Your task to perform on an android device: turn off priority inbox in the gmail app Image 0: 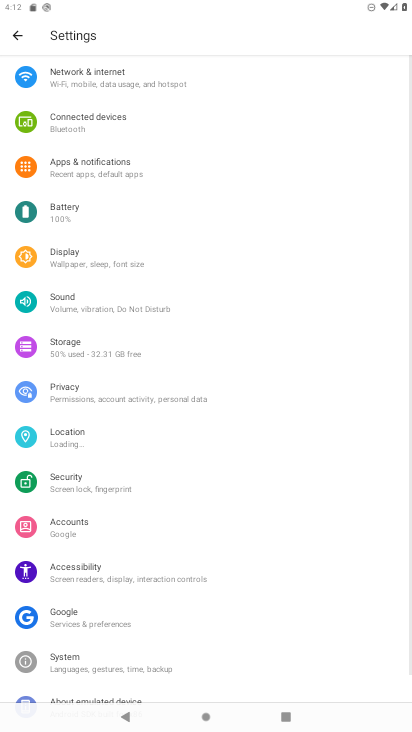
Step 0: press home button
Your task to perform on an android device: turn off priority inbox in the gmail app Image 1: 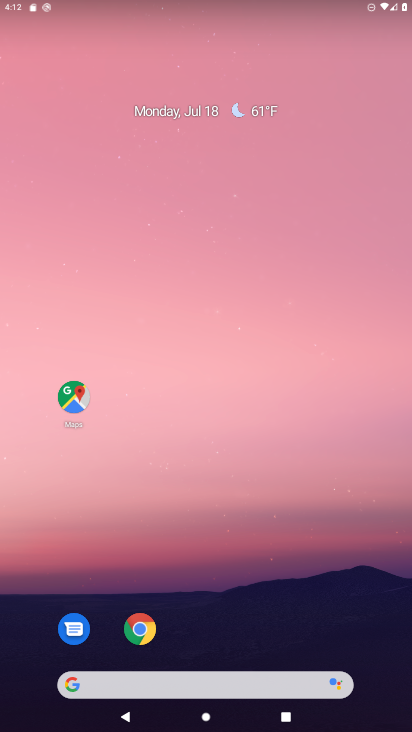
Step 1: drag from (114, 668) to (108, 313)
Your task to perform on an android device: turn off priority inbox in the gmail app Image 2: 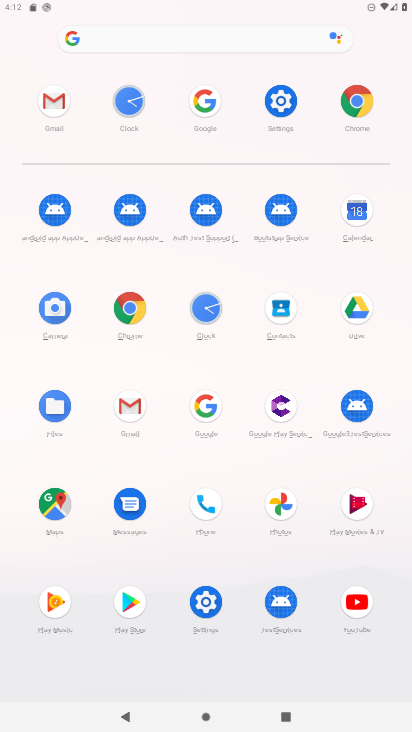
Step 2: click (123, 405)
Your task to perform on an android device: turn off priority inbox in the gmail app Image 3: 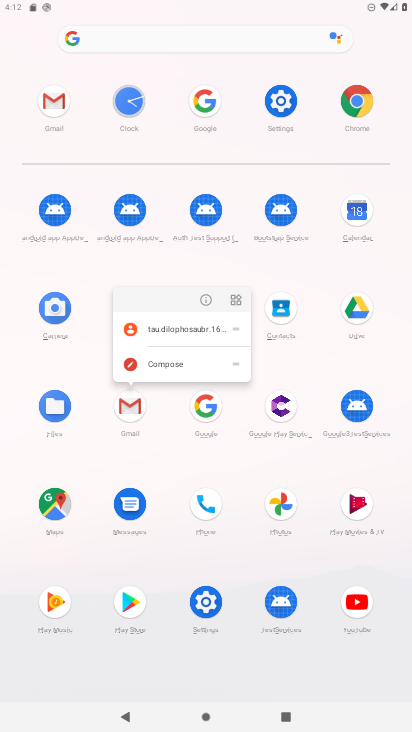
Step 3: click (137, 405)
Your task to perform on an android device: turn off priority inbox in the gmail app Image 4: 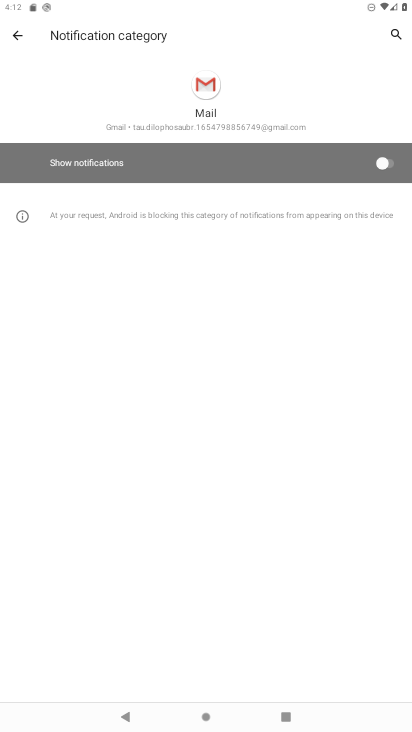
Step 4: click (21, 33)
Your task to perform on an android device: turn off priority inbox in the gmail app Image 5: 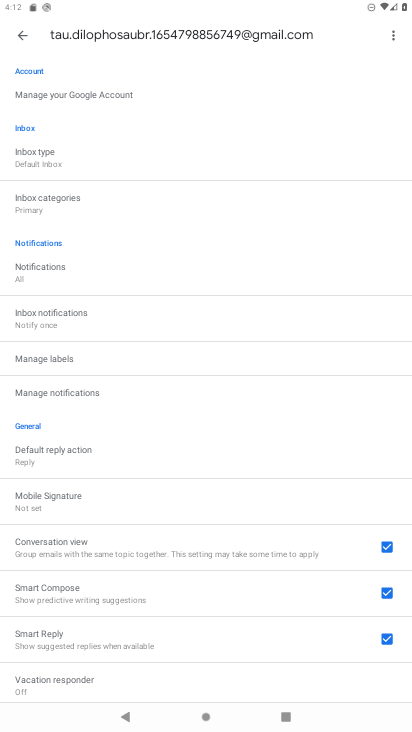
Step 5: click (60, 168)
Your task to perform on an android device: turn off priority inbox in the gmail app Image 6: 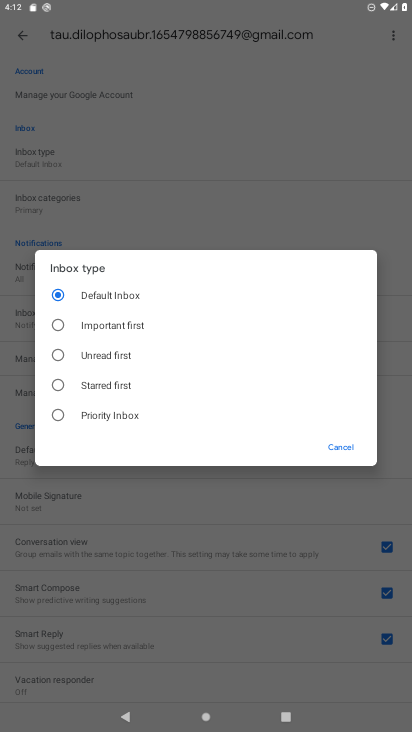
Step 6: click (339, 450)
Your task to perform on an android device: turn off priority inbox in the gmail app Image 7: 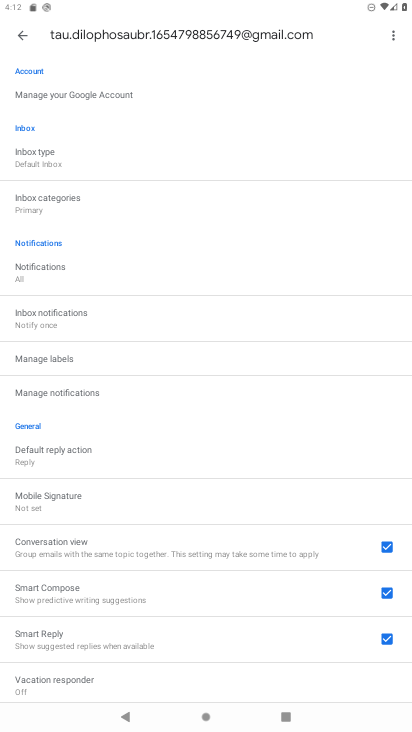
Step 7: task complete